Your task to perform on an android device: Go to display settings Image 0: 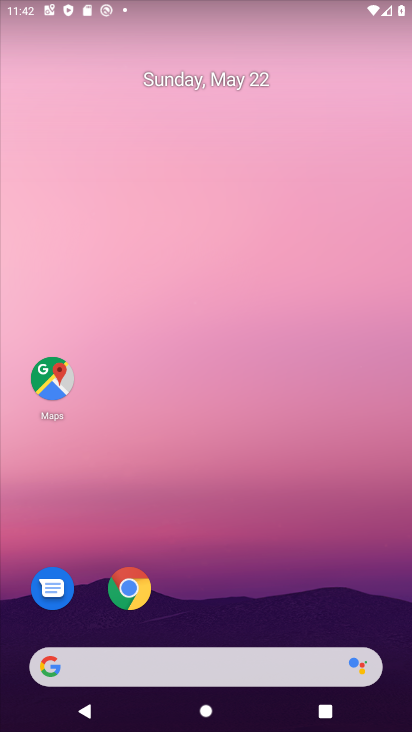
Step 0: drag from (235, 695) to (192, 362)
Your task to perform on an android device: Go to display settings Image 1: 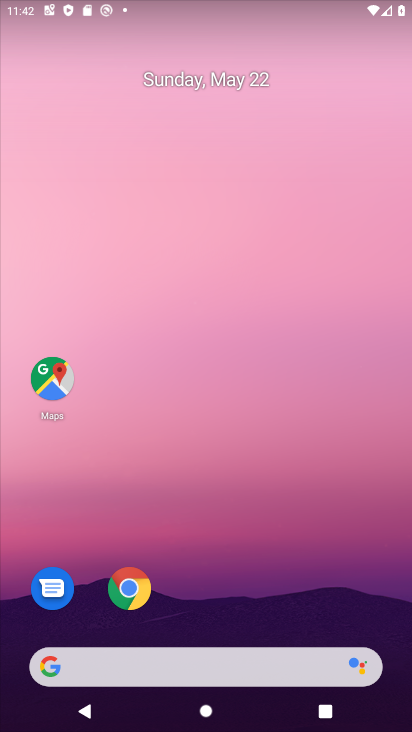
Step 1: drag from (262, 685) to (256, 243)
Your task to perform on an android device: Go to display settings Image 2: 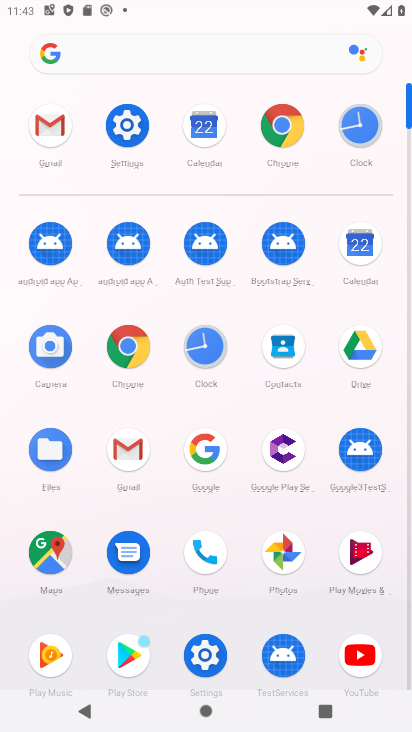
Step 2: click (210, 640)
Your task to perform on an android device: Go to display settings Image 3: 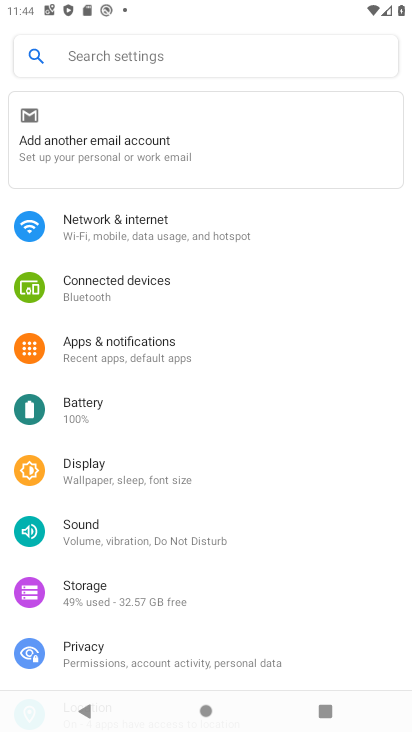
Step 3: click (104, 462)
Your task to perform on an android device: Go to display settings Image 4: 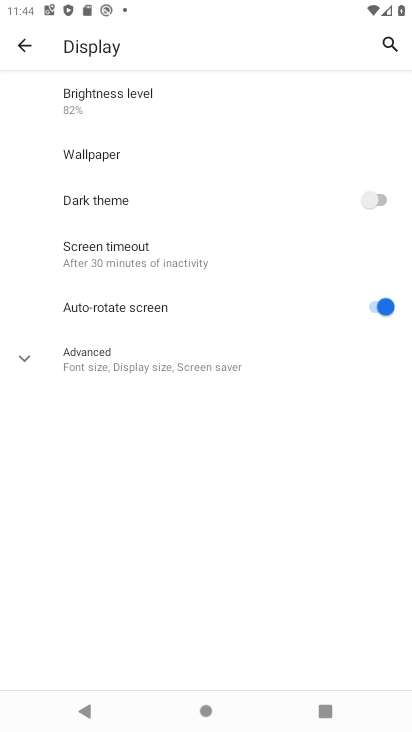
Step 4: task complete